Your task to perform on an android device: turn off picture-in-picture Image 0: 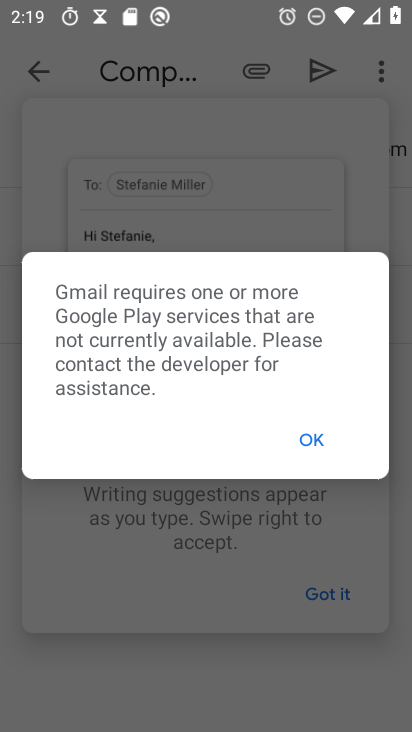
Step 0: press home button
Your task to perform on an android device: turn off picture-in-picture Image 1: 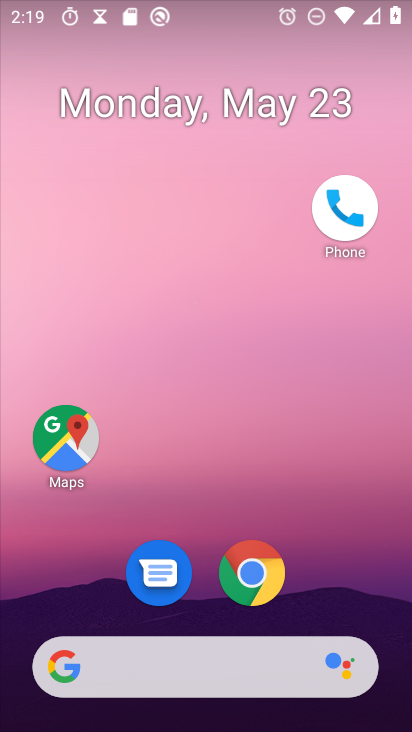
Step 1: click (255, 566)
Your task to perform on an android device: turn off picture-in-picture Image 2: 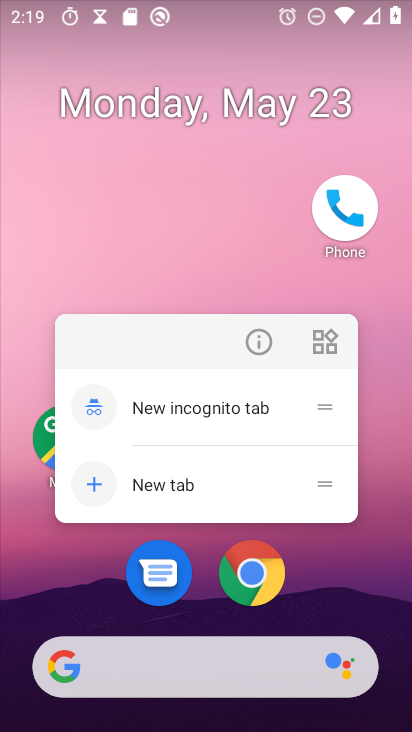
Step 2: click (265, 359)
Your task to perform on an android device: turn off picture-in-picture Image 3: 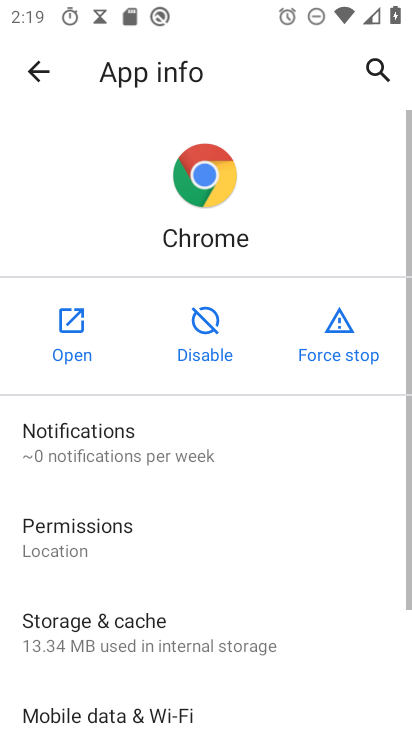
Step 3: drag from (222, 653) to (277, 247)
Your task to perform on an android device: turn off picture-in-picture Image 4: 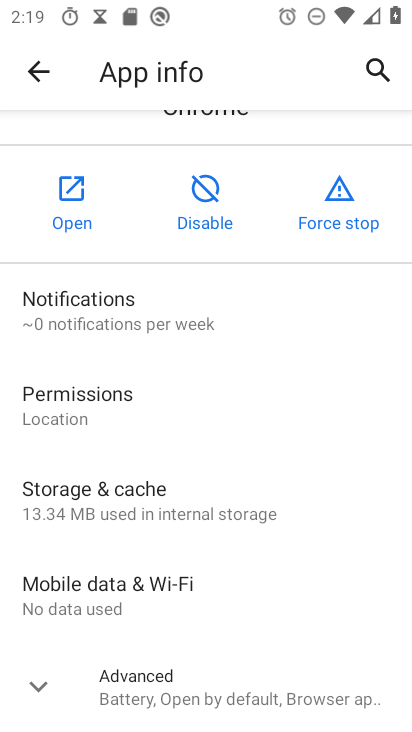
Step 4: drag from (194, 650) to (304, 213)
Your task to perform on an android device: turn off picture-in-picture Image 5: 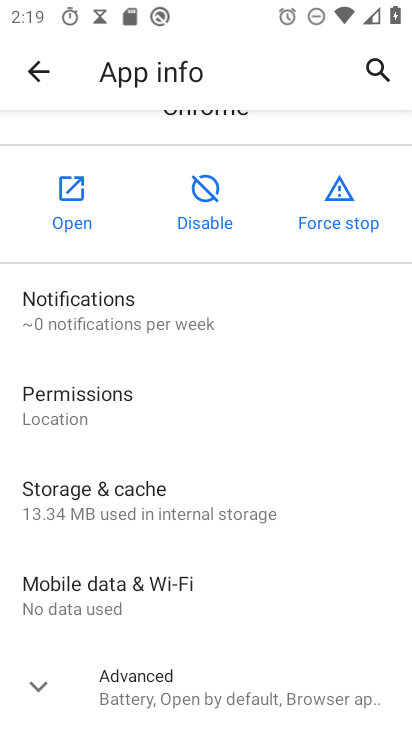
Step 5: click (146, 699)
Your task to perform on an android device: turn off picture-in-picture Image 6: 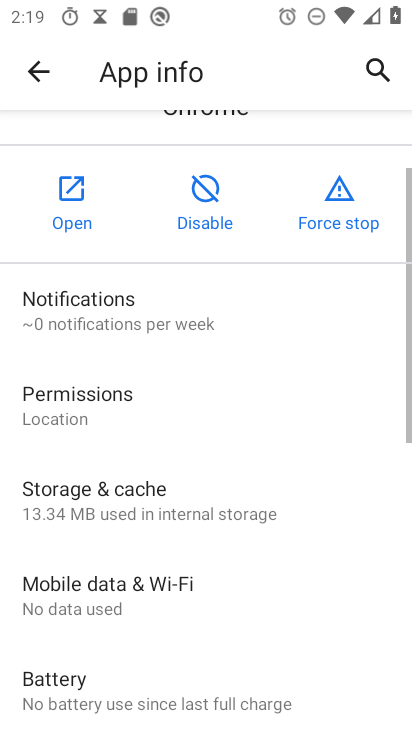
Step 6: drag from (173, 655) to (370, 186)
Your task to perform on an android device: turn off picture-in-picture Image 7: 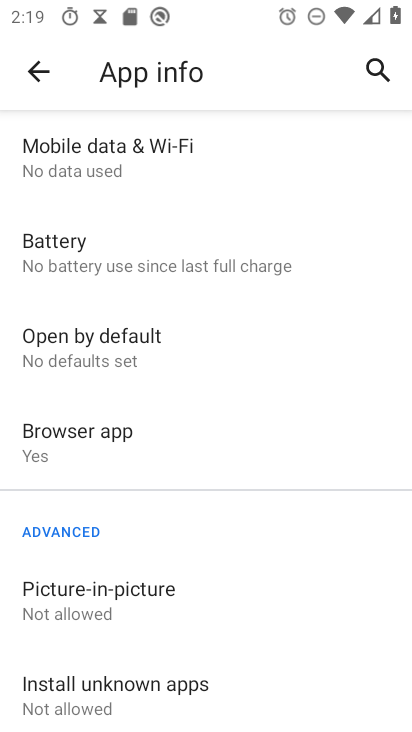
Step 7: click (114, 602)
Your task to perform on an android device: turn off picture-in-picture Image 8: 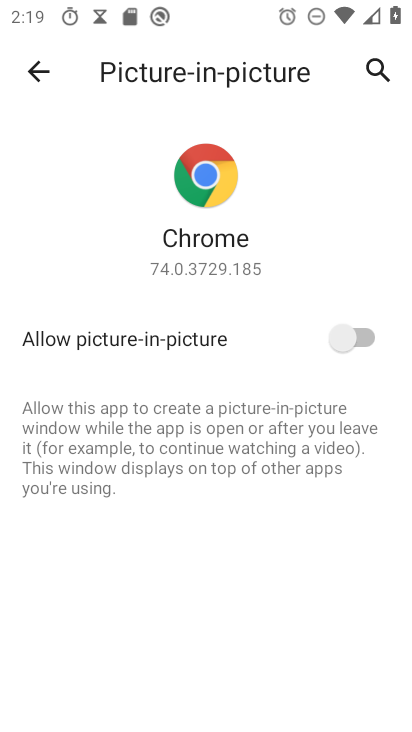
Step 8: task complete